Your task to perform on an android device: toggle data saver in the chrome app Image 0: 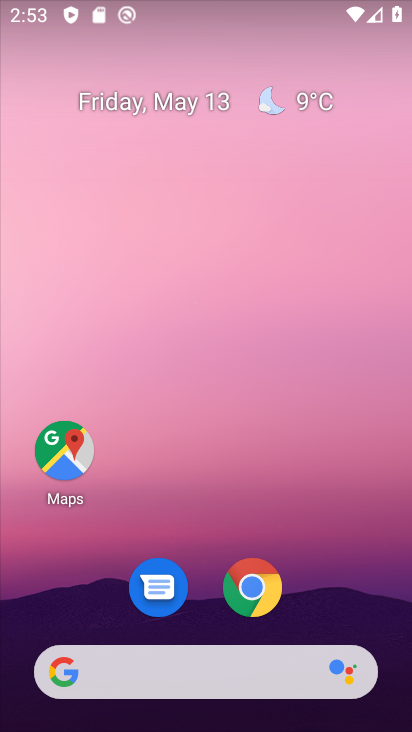
Step 0: click (267, 591)
Your task to perform on an android device: toggle data saver in the chrome app Image 1: 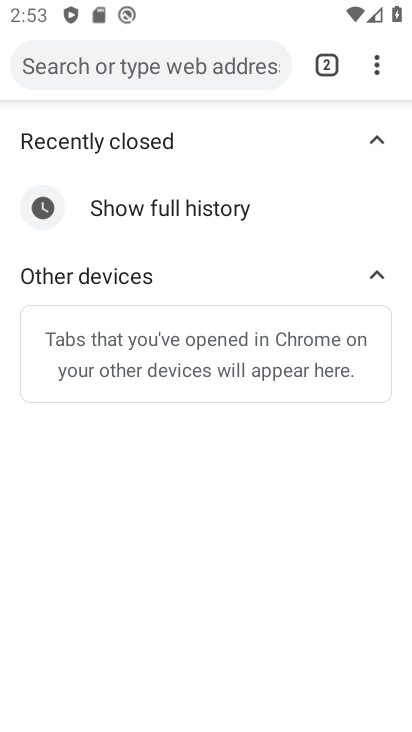
Step 1: drag from (377, 75) to (283, 558)
Your task to perform on an android device: toggle data saver in the chrome app Image 2: 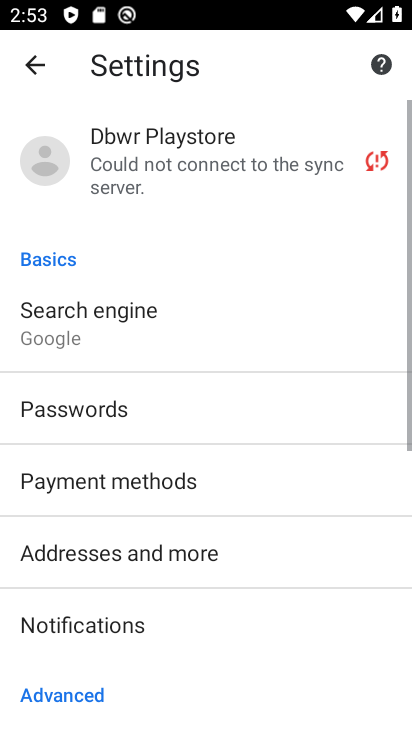
Step 2: drag from (222, 633) to (212, 229)
Your task to perform on an android device: toggle data saver in the chrome app Image 3: 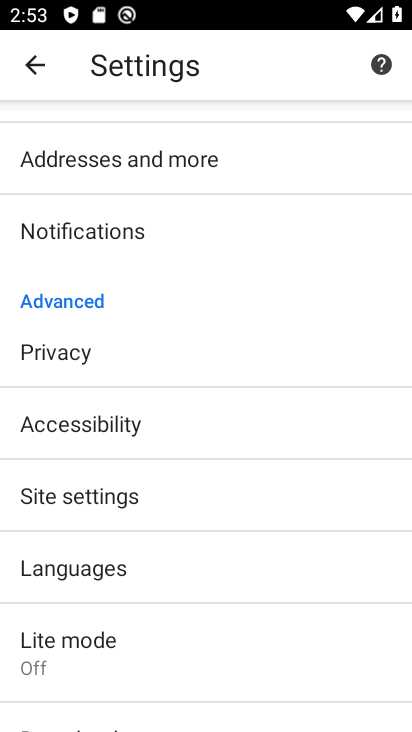
Step 3: drag from (180, 564) to (180, 369)
Your task to perform on an android device: toggle data saver in the chrome app Image 4: 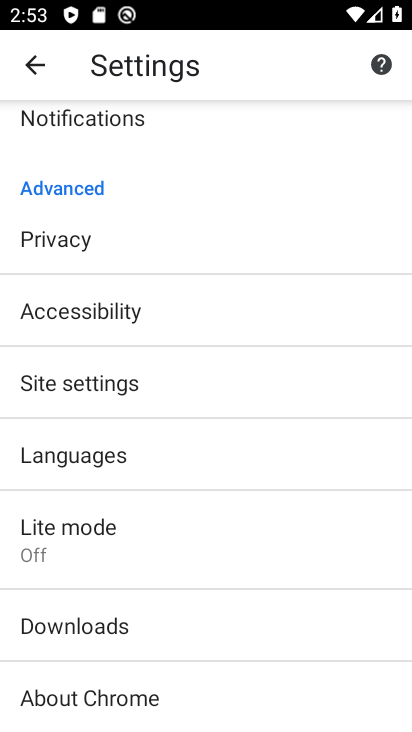
Step 4: drag from (193, 586) to (217, 304)
Your task to perform on an android device: toggle data saver in the chrome app Image 5: 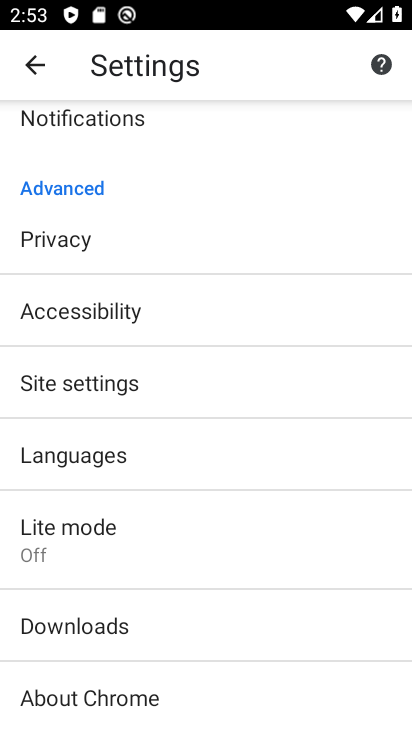
Step 5: click (147, 534)
Your task to perform on an android device: toggle data saver in the chrome app Image 6: 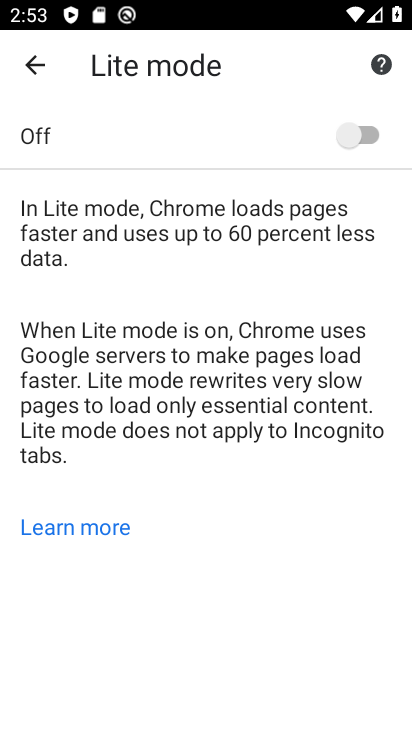
Step 6: click (365, 133)
Your task to perform on an android device: toggle data saver in the chrome app Image 7: 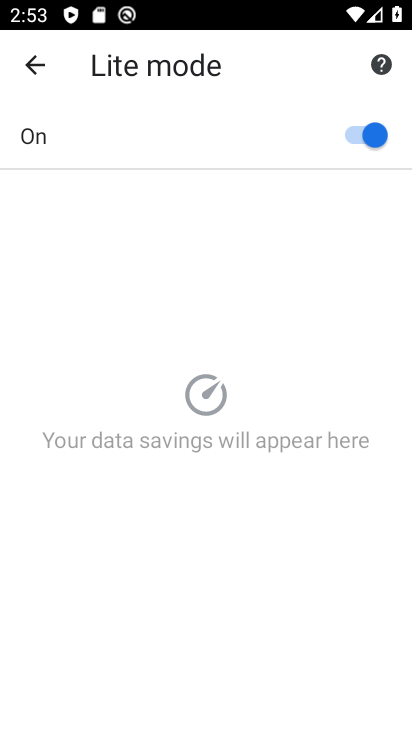
Step 7: task complete